Your task to perform on an android device: turn on sleep mode Image 0: 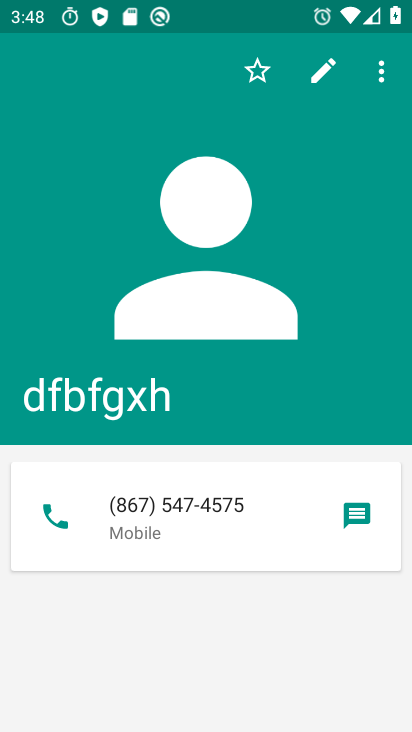
Step 0: press home button
Your task to perform on an android device: turn on sleep mode Image 1: 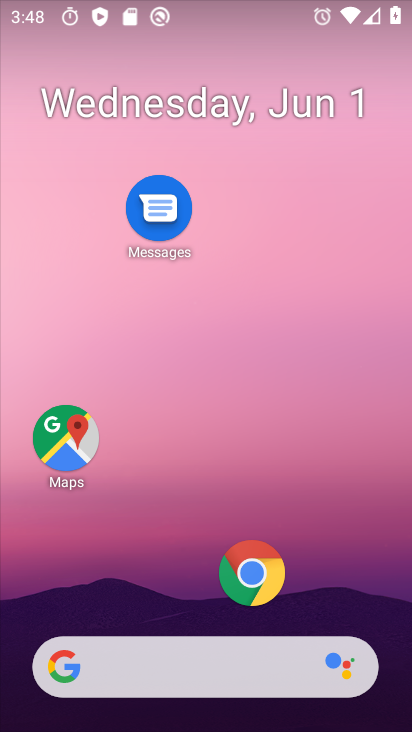
Step 1: drag from (164, 614) to (177, 202)
Your task to perform on an android device: turn on sleep mode Image 2: 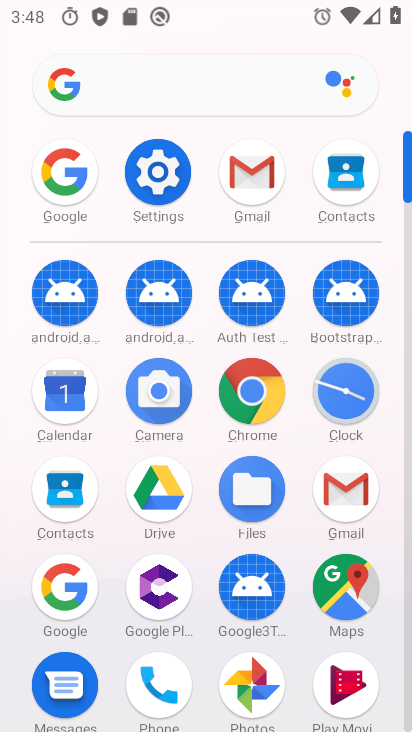
Step 2: click (156, 157)
Your task to perform on an android device: turn on sleep mode Image 3: 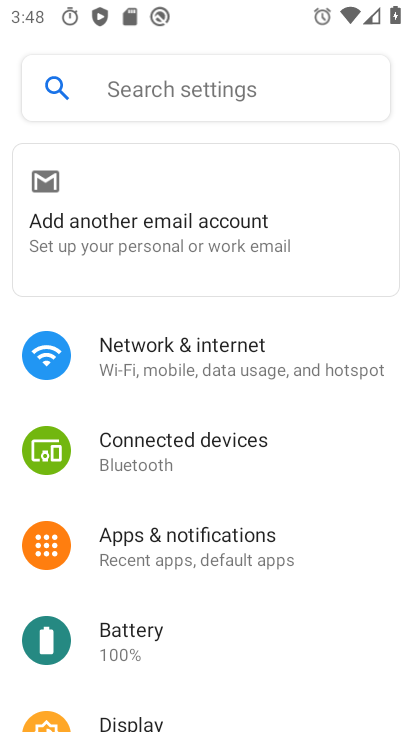
Step 3: drag from (182, 661) to (227, 357)
Your task to perform on an android device: turn on sleep mode Image 4: 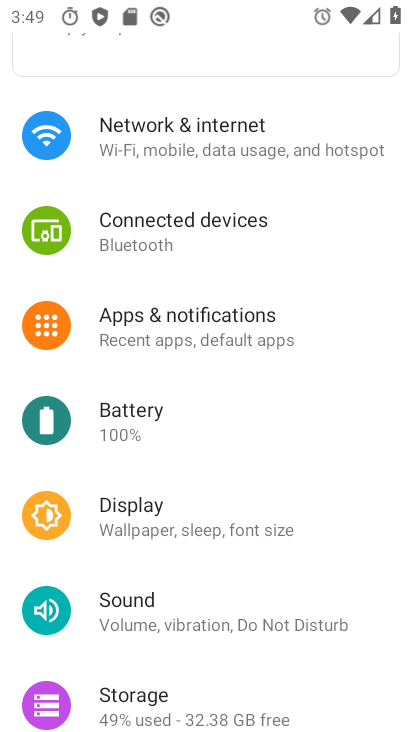
Step 4: click (156, 530)
Your task to perform on an android device: turn on sleep mode Image 5: 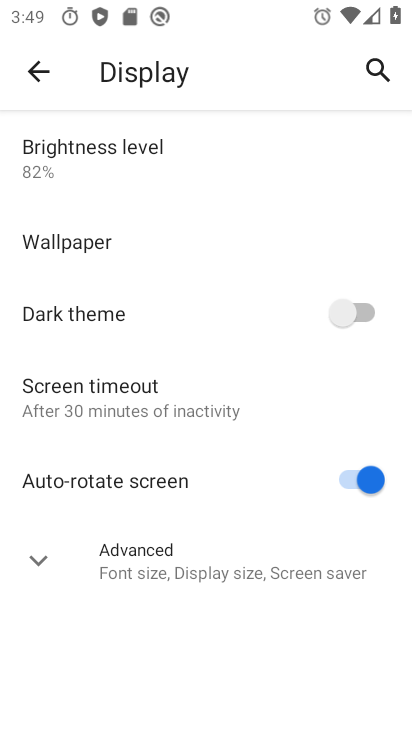
Step 5: click (162, 421)
Your task to perform on an android device: turn on sleep mode Image 6: 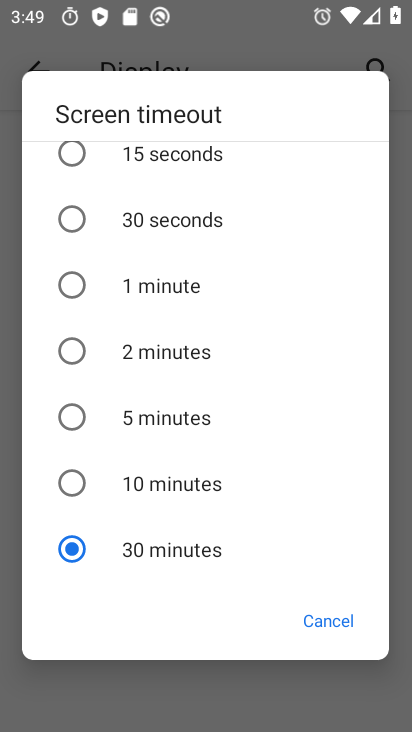
Step 6: click (136, 341)
Your task to perform on an android device: turn on sleep mode Image 7: 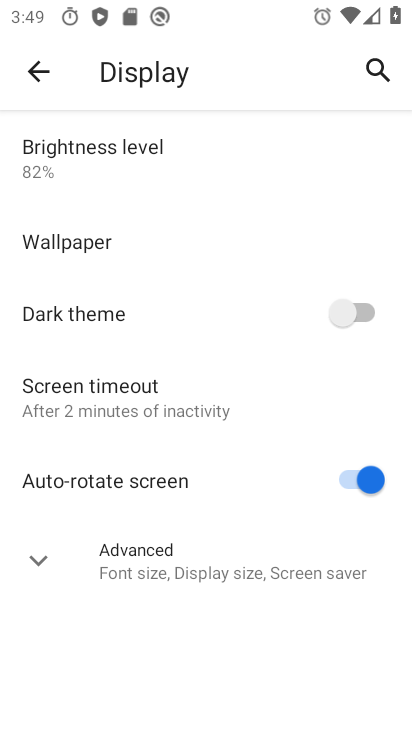
Step 7: task complete